Your task to perform on an android device: open app "PlayWell" (install if not already installed) and enter user name: "metric@gmail.com" and password: "bumblebee" Image 0: 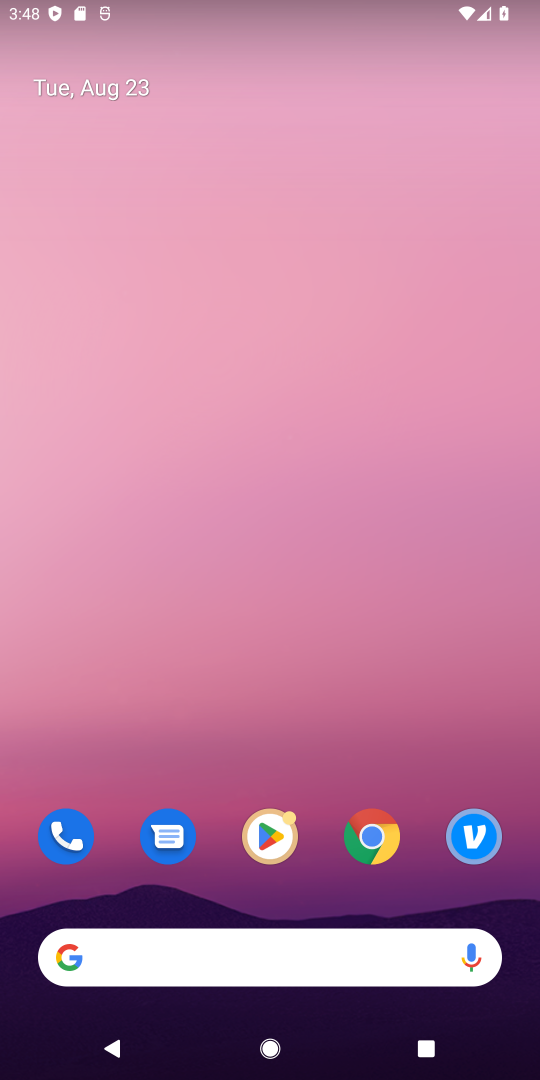
Step 0: click (269, 832)
Your task to perform on an android device: open app "PlayWell" (install if not already installed) and enter user name: "metric@gmail.com" and password: "bumblebee" Image 1: 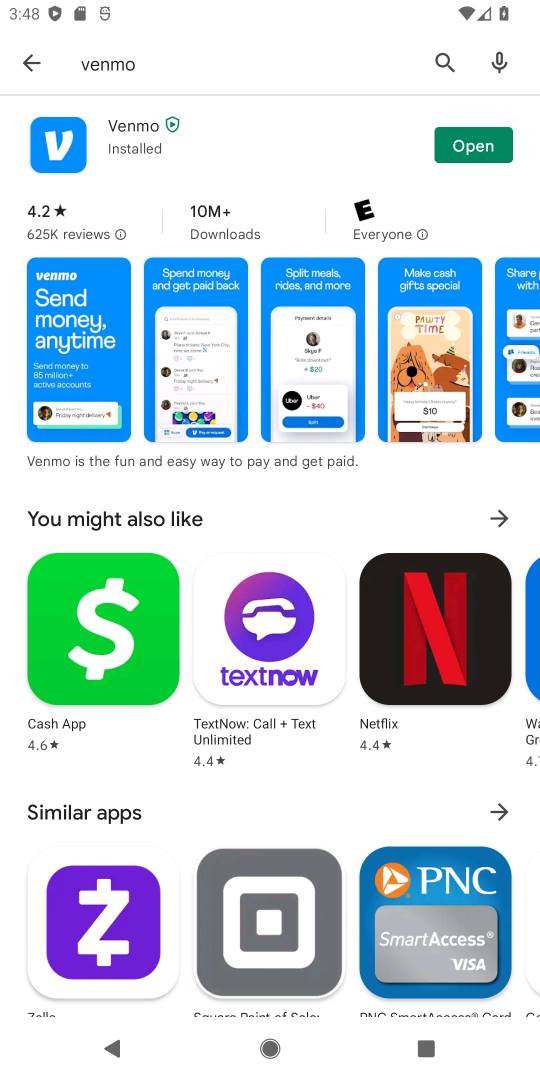
Step 1: click (440, 60)
Your task to perform on an android device: open app "PlayWell" (install if not already installed) and enter user name: "metric@gmail.com" and password: "bumblebee" Image 2: 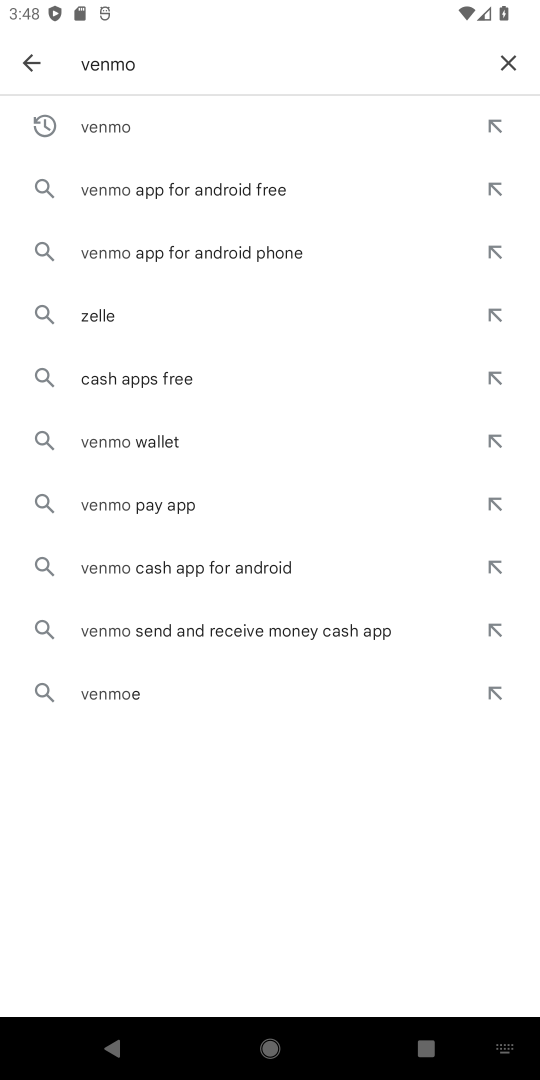
Step 2: click (506, 59)
Your task to perform on an android device: open app "PlayWell" (install if not already installed) and enter user name: "metric@gmail.com" and password: "bumblebee" Image 3: 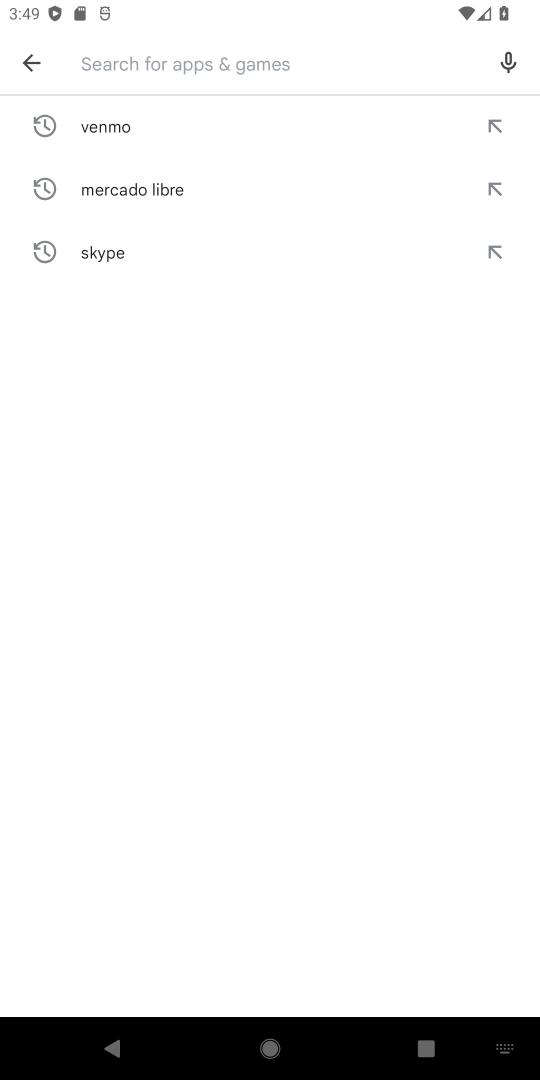
Step 3: type "PlayWell"
Your task to perform on an android device: open app "PlayWell" (install if not already installed) and enter user name: "metric@gmail.com" and password: "bumblebee" Image 4: 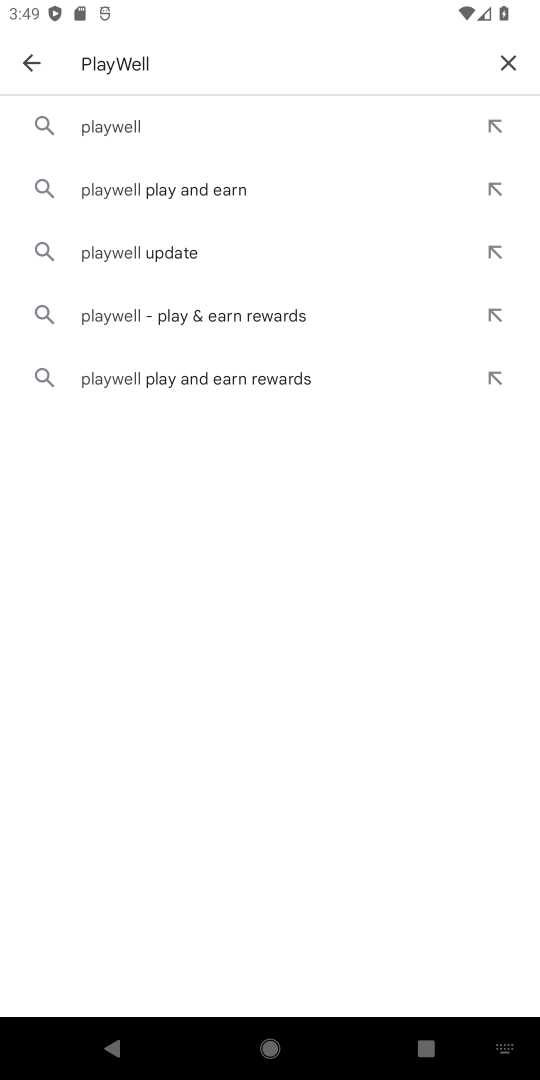
Step 4: click (125, 130)
Your task to perform on an android device: open app "PlayWell" (install if not already installed) and enter user name: "metric@gmail.com" and password: "bumblebee" Image 5: 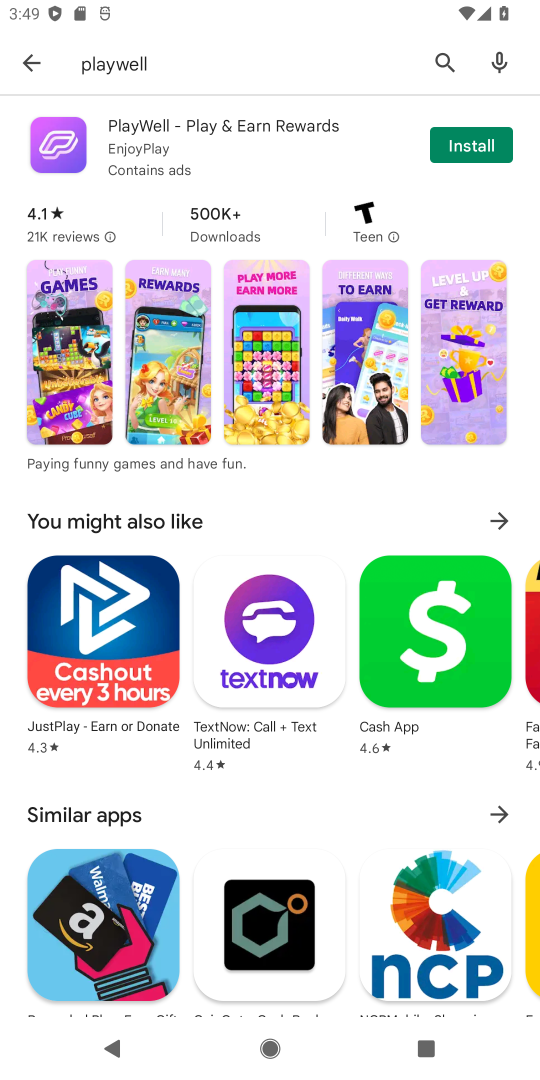
Step 5: click (474, 144)
Your task to perform on an android device: open app "PlayWell" (install if not already installed) and enter user name: "metric@gmail.com" and password: "bumblebee" Image 6: 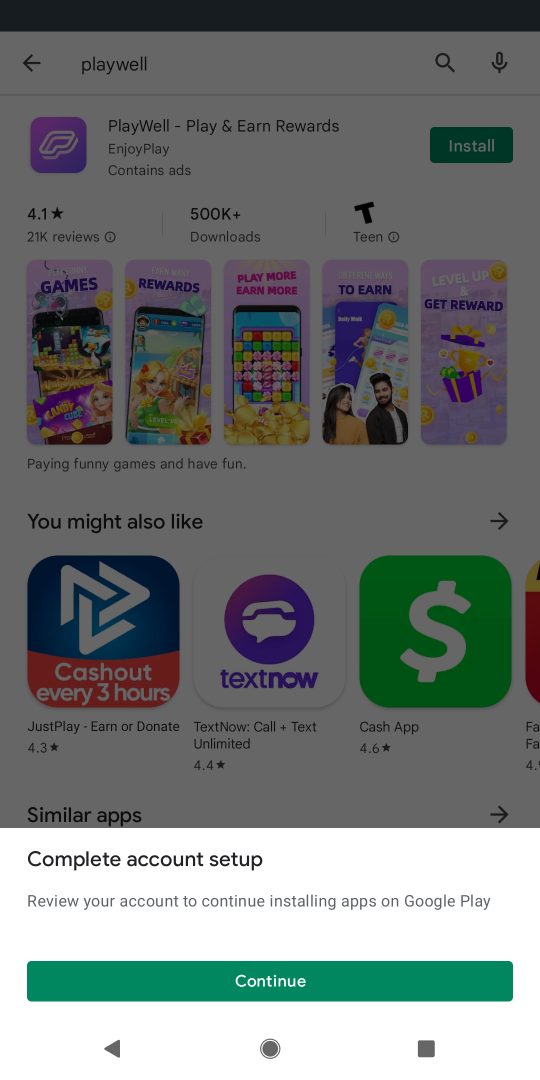
Step 6: click (260, 985)
Your task to perform on an android device: open app "PlayWell" (install if not already installed) and enter user name: "metric@gmail.com" and password: "bumblebee" Image 7: 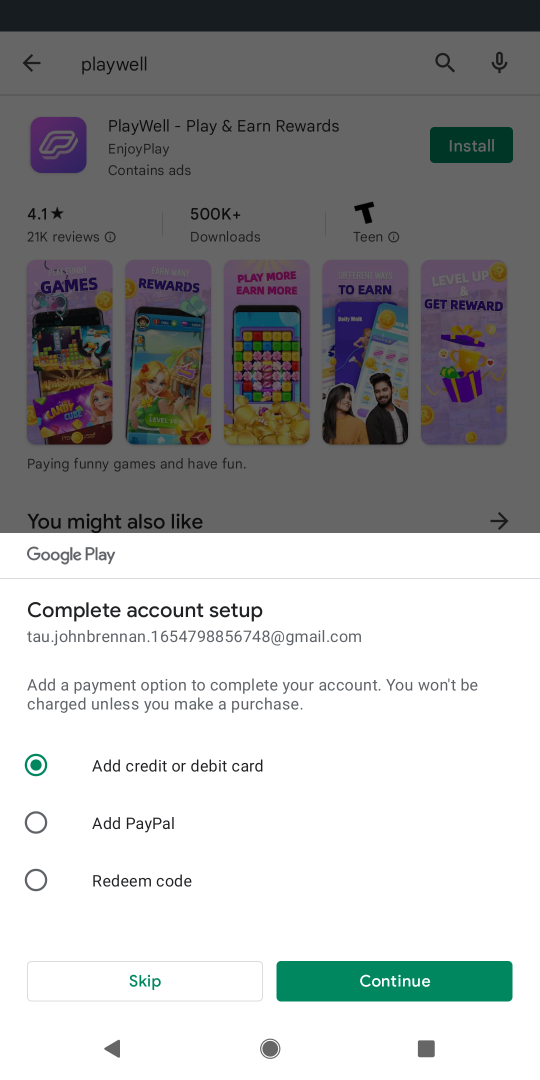
Step 7: click (139, 973)
Your task to perform on an android device: open app "PlayWell" (install if not already installed) and enter user name: "metric@gmail.com" and password: "bumblebee" Image 8: 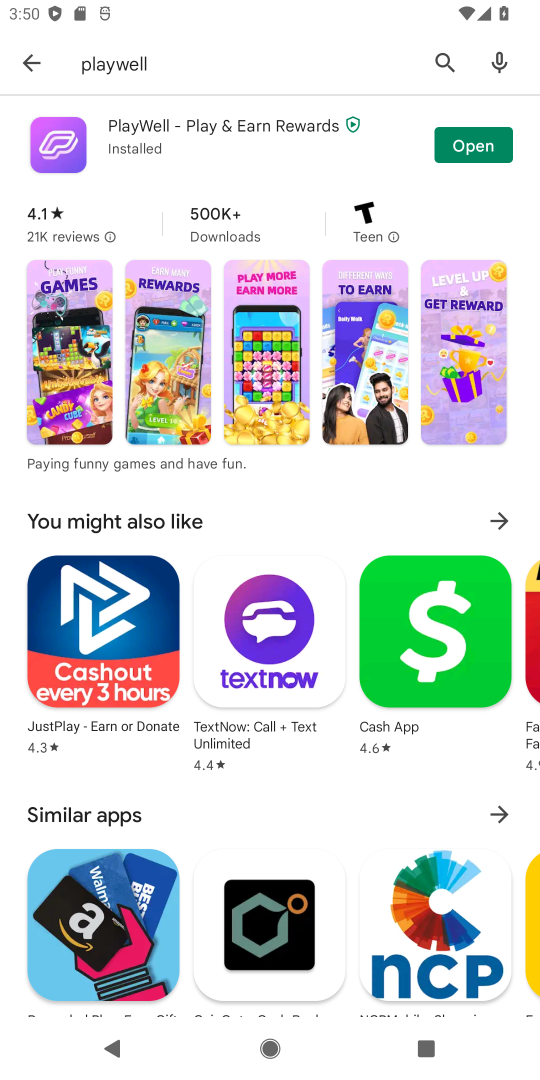
Step 8: click (480, 148)
Your task to perform on an android device: open app "PlayWell" (install if not already installed) and enter user name: "metric@gmail.com" and password: "bumblebee" Image 9: 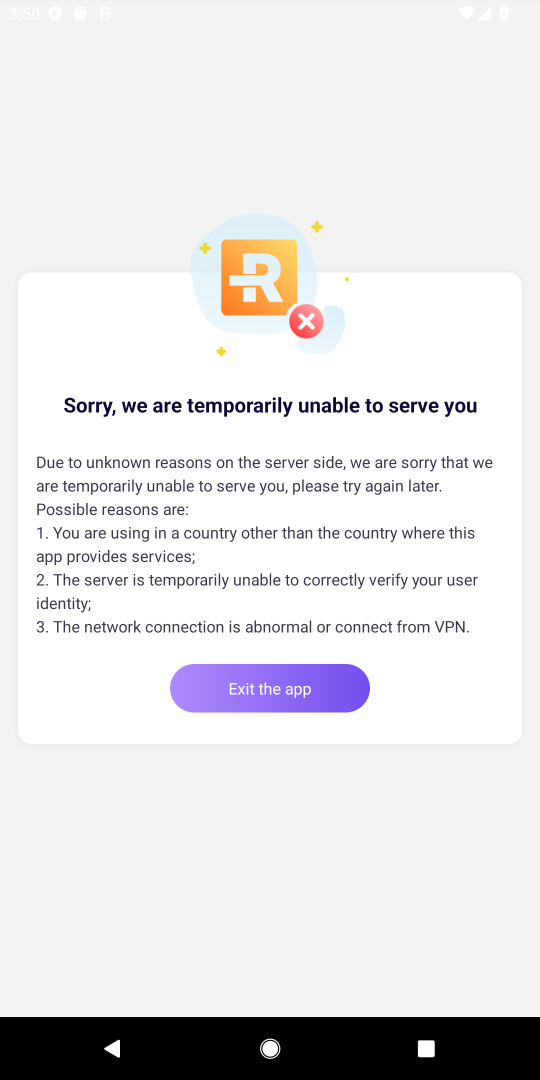
Step 9: click (261, 700)
Your task to perform on an android device: open app "PlayWell" (install if not already installed) and enter user name: "metric@gmail.com" and password: "bumblebee" Image 10: 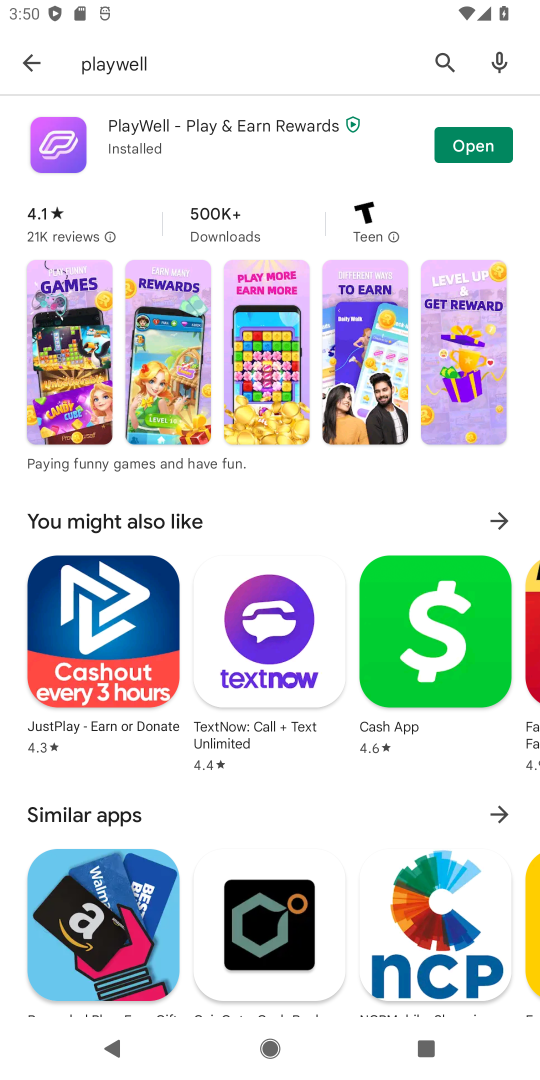
Step 10: click (462, 148)
Your task to perform on an android device: open app "PlayWell" (install if not already installed) and enter user name: "metric@gmail.com" and password: "bumblebee" Image 11: 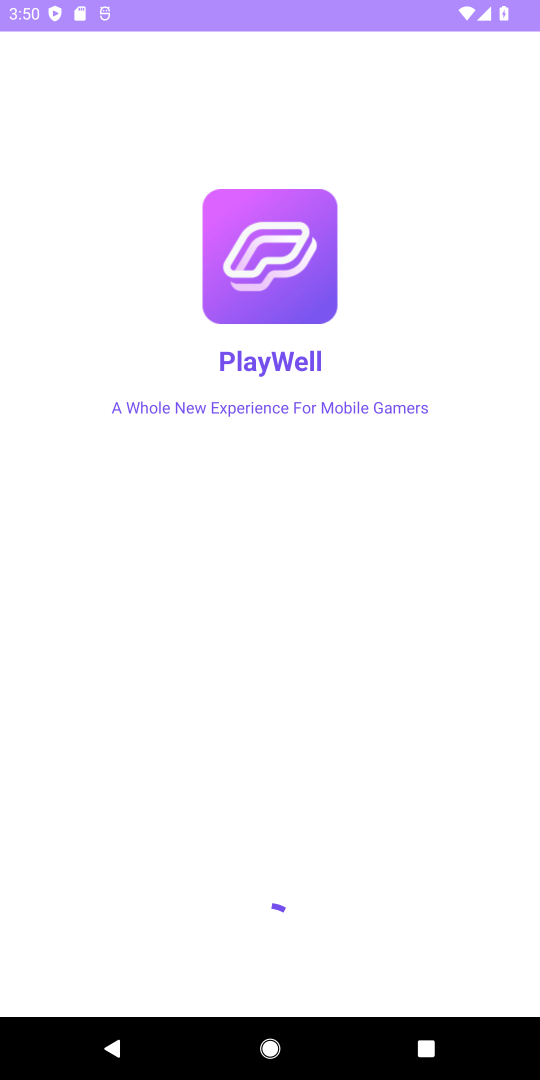
Step 11: task complete